Your task to perform on an android device: check storage Image 0: 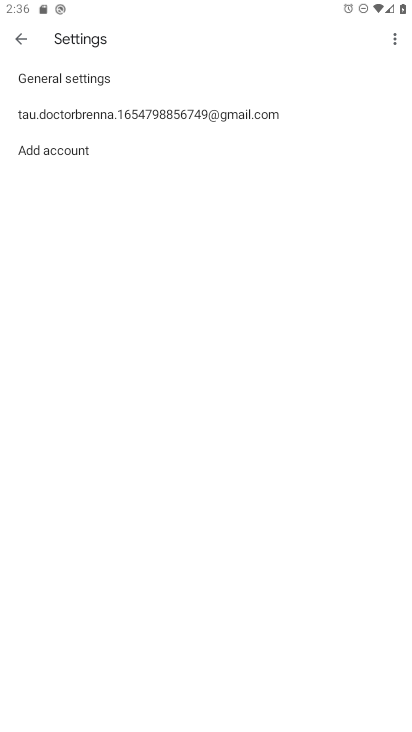
Step 0: press home button
Your task to perform on an android device: check storage Image 1: 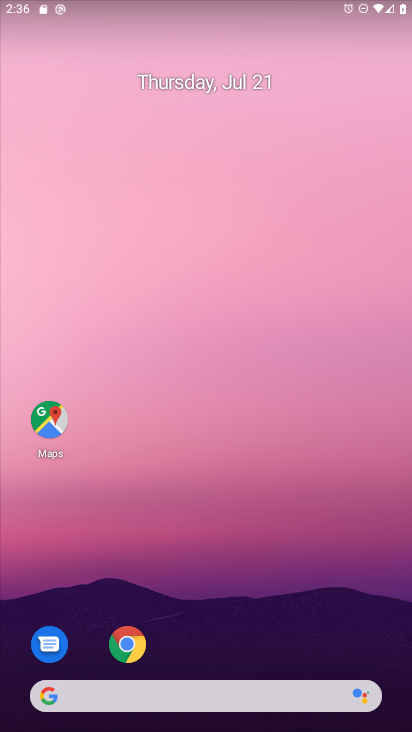
Step 1: drag from (201, 626) to (225, 278)
Your task to perform on an android device: check storage Image 2: 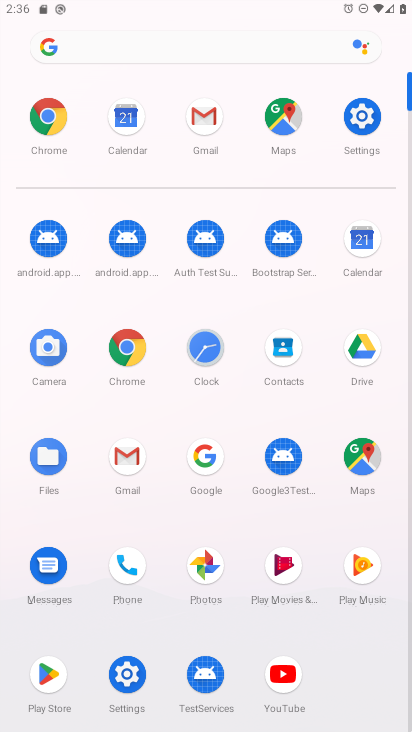
Step 2: click (353, 120)
Your task to perform on an android device: check storage Image 3: 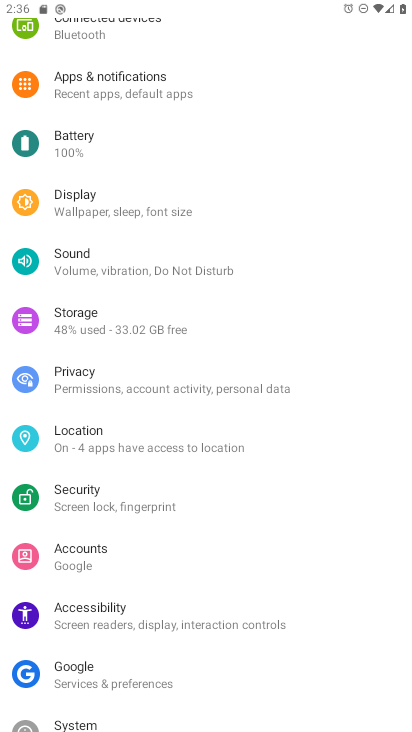
Step 3: click (103, 317)
Your task to perform on an android device: check storage Image 4: 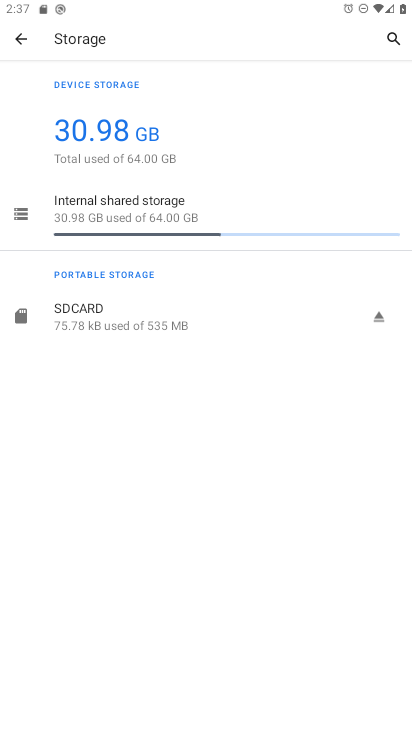
Step 4: task complete